Your task to perform on an android device: empty trash in the gmail app Image 0: 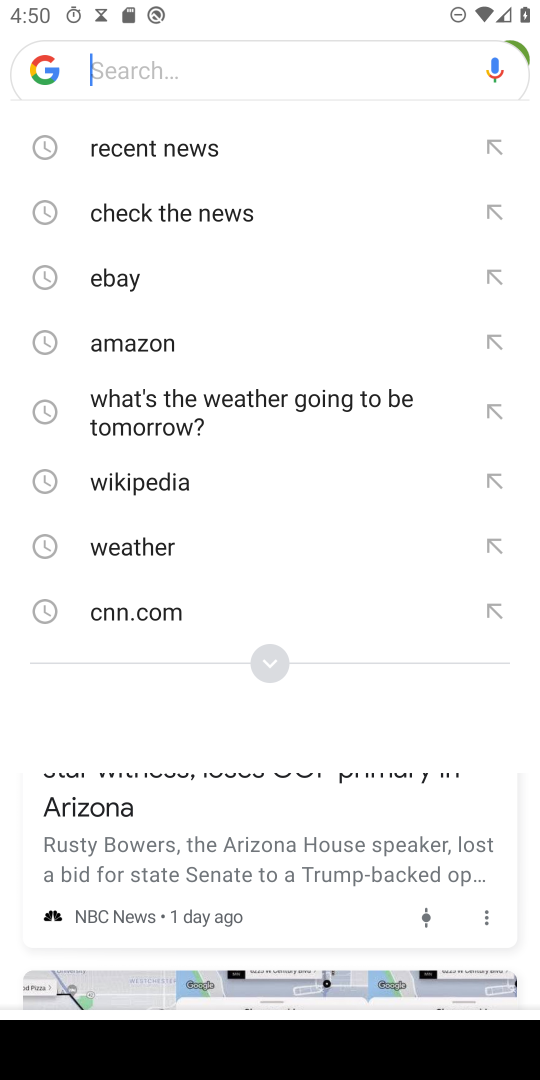
Step 0: press home button
Your task to perform on an android device: empty trash in the gmail app Image 1: 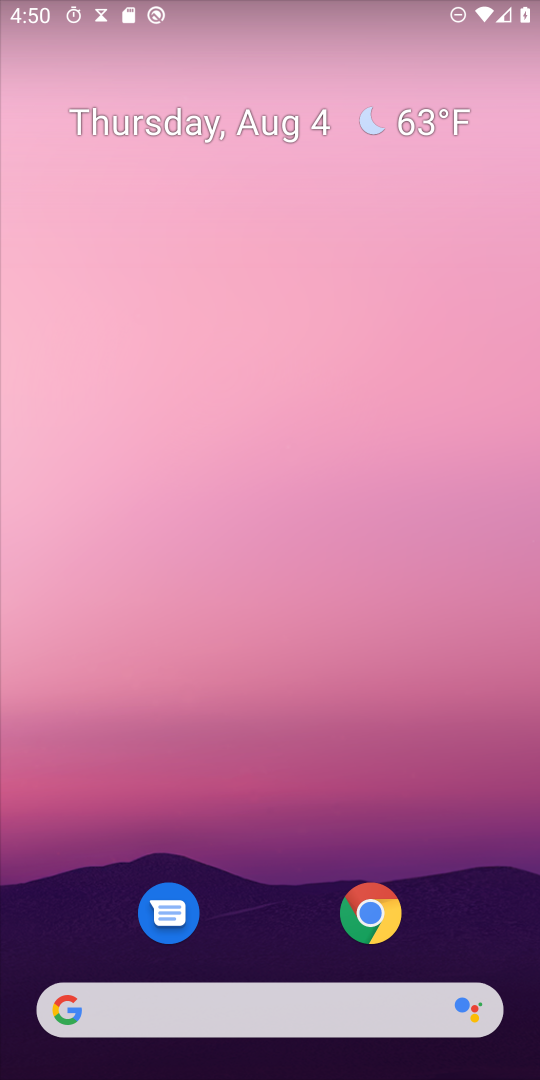
Step 1: drag from (327, 1005) to (381, 9)
Your task to perform on an android device: empty trash in the gmail app Image 2: 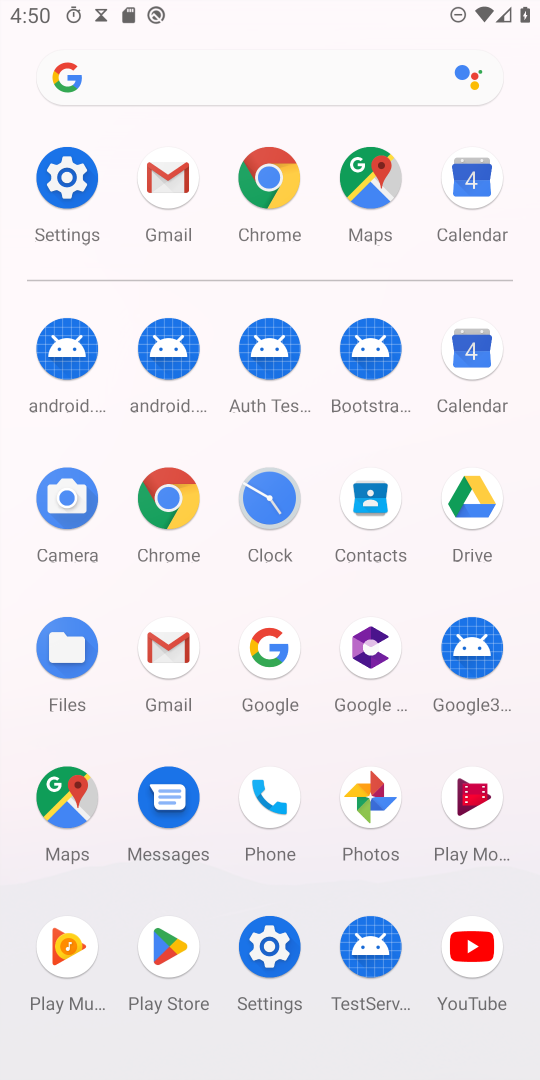
Step 2: click (173, 649)
Your task to perform on an android device: empty trash in the gmail app Image 3: 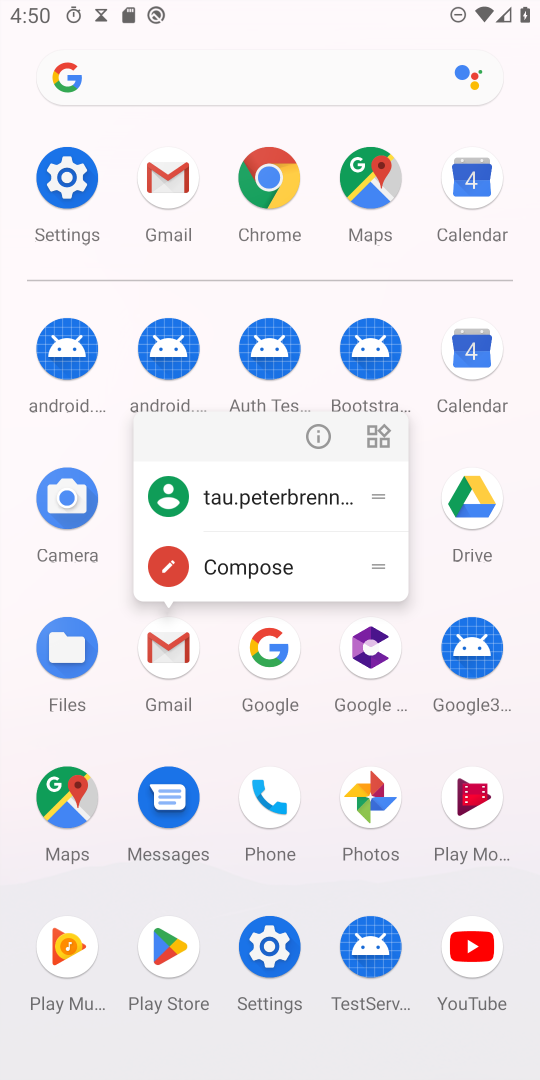
Step 3: click (167, 636)
Your task to perform on an android device: empty trash in the gmail app Image 4: 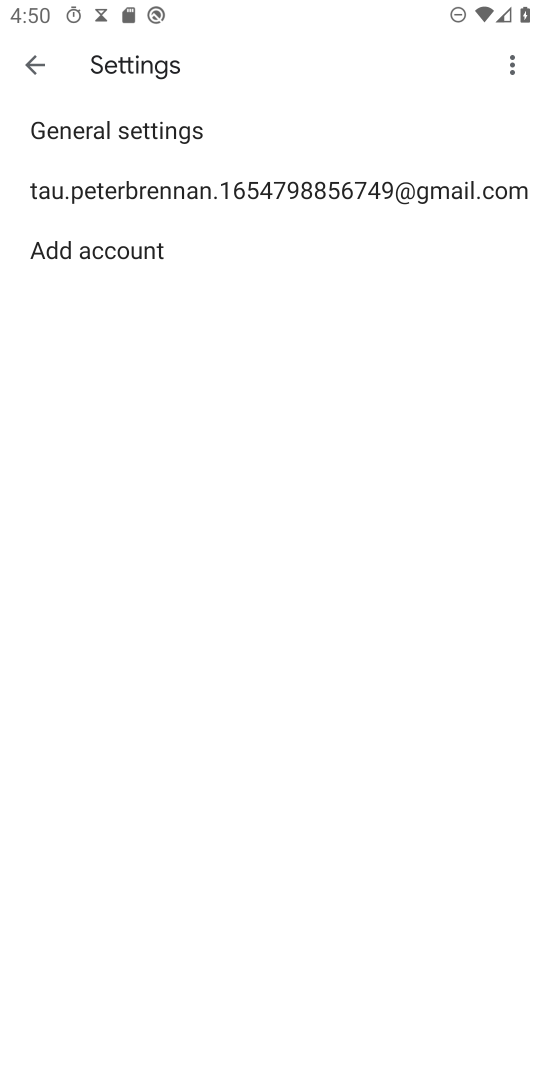
Step 4: press back button
Your task to perform on an android device: empty trash in the gmail app Image 5: 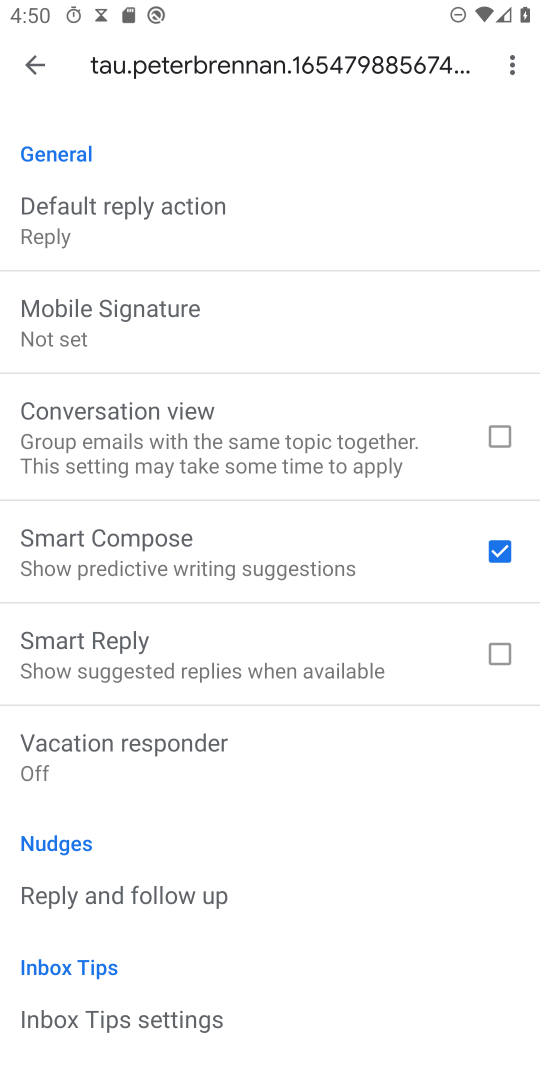
Step 5: press back button
Your task to perform on an android device: empty trash in the gmail app Image 6: 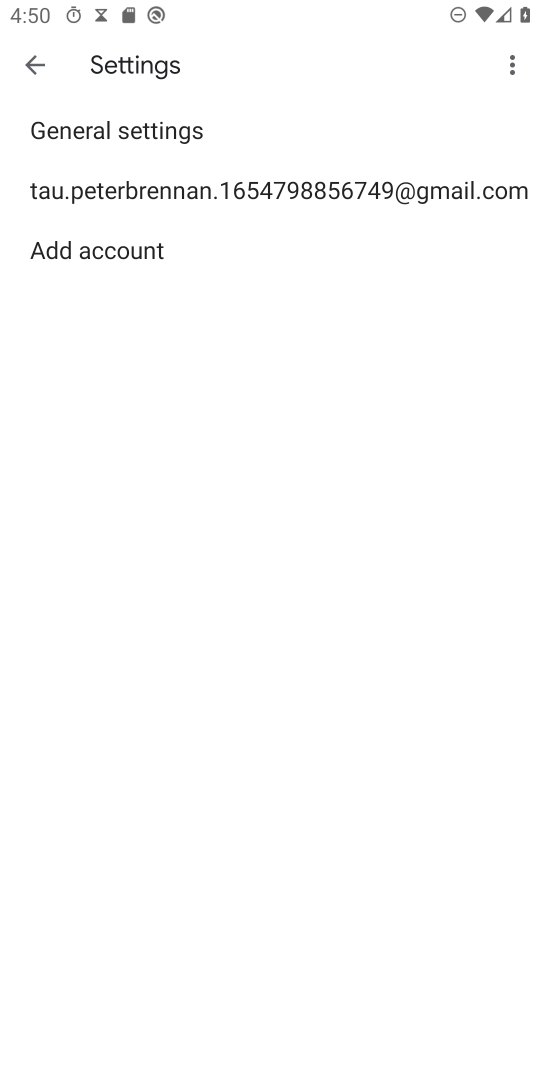
Step 6: press back button
Your task to perform on an android device: empty trash in the gmail app Image 7: 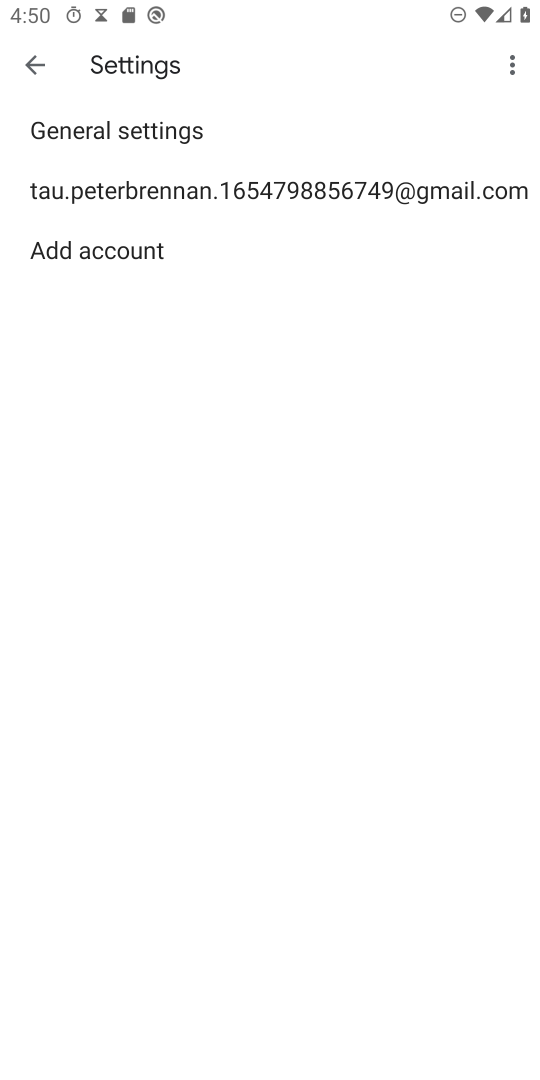
Step 7: press back button
Your task to perform on an android device: empty trash in the gmail app Image 8: 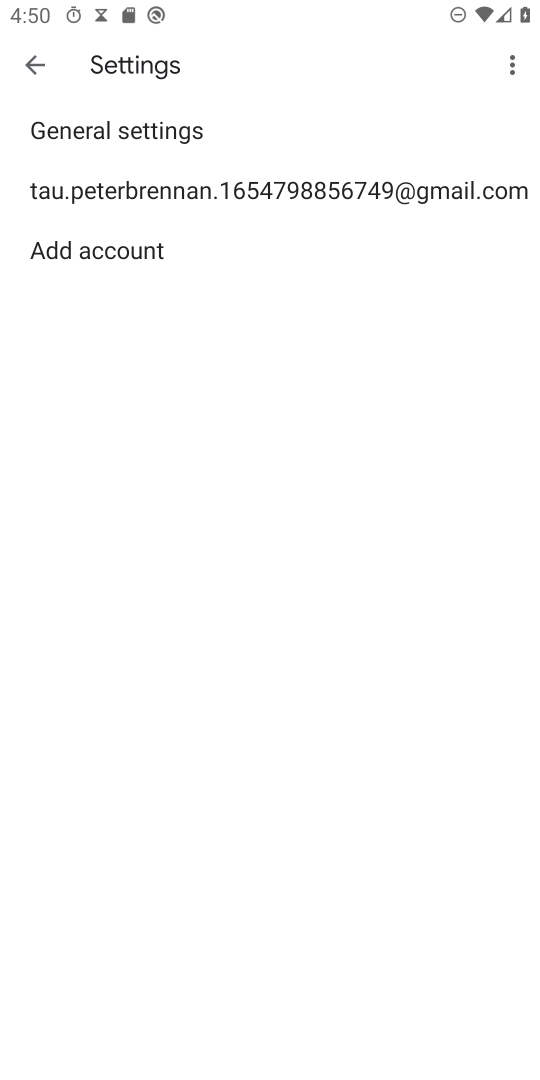
Step 8: press back button
Your task to perform on an android device: empty trash in the gmail app Image 9: 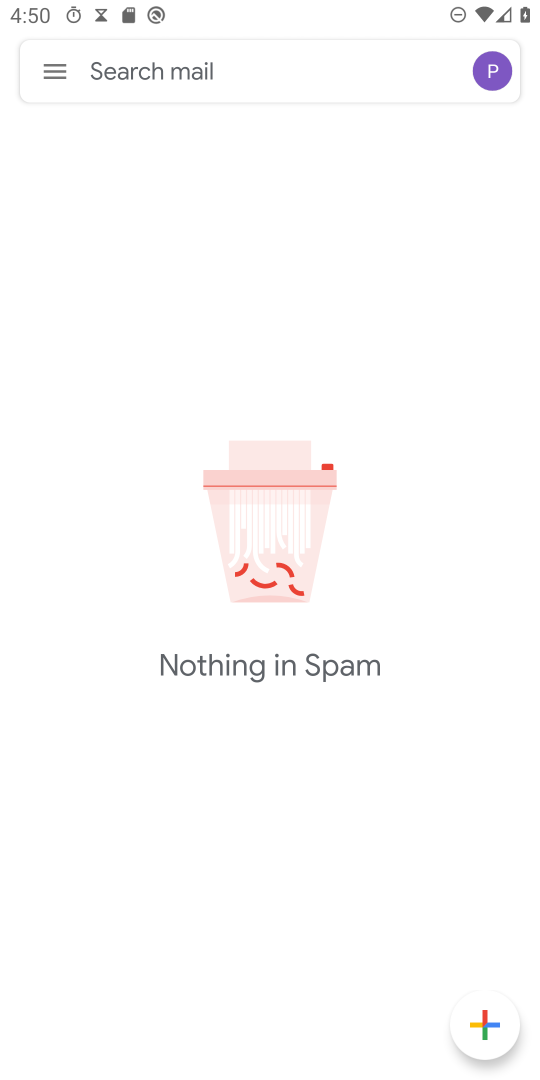
Step 9: click (51, 79)
Your task to perform on an android device: empty trash in the gmail app Image 10: 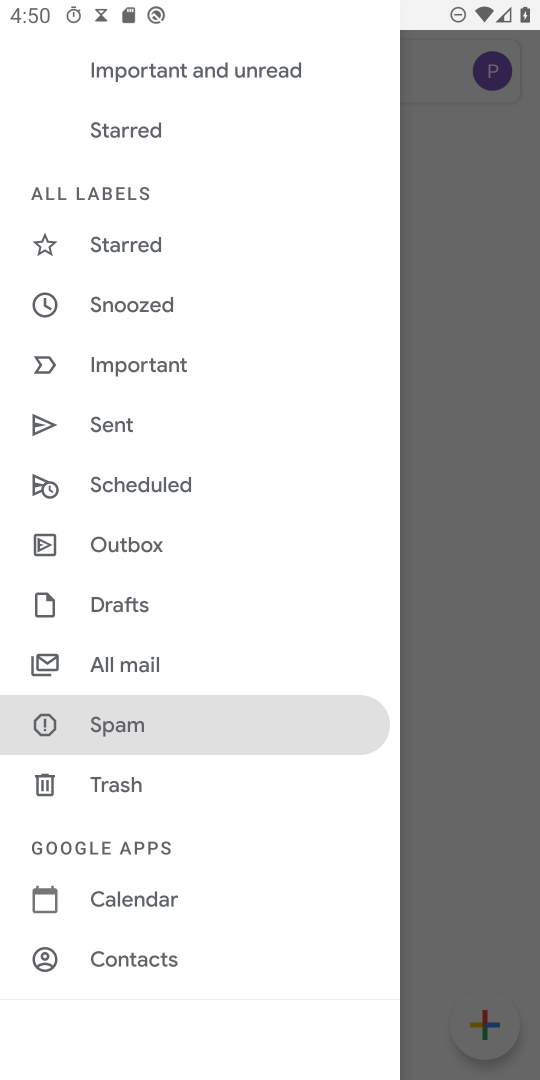
Step 10: click (133, 788)
Your task to perform on an android device: empty trash in the gmail app Image 11: 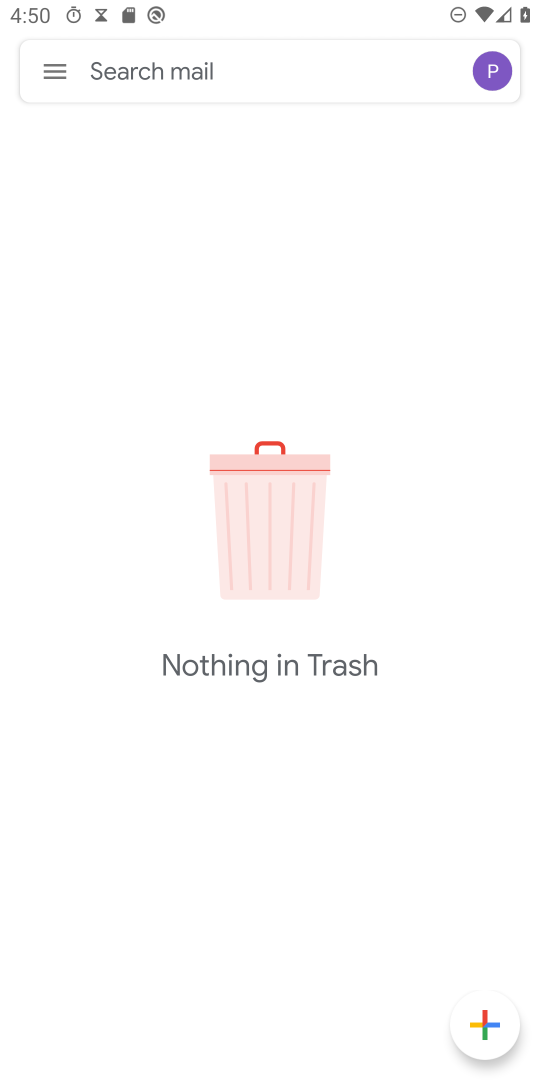
Step 11: task complete